Your task to perform on an android device: turn off priority inbox in the gmail app Image 0: 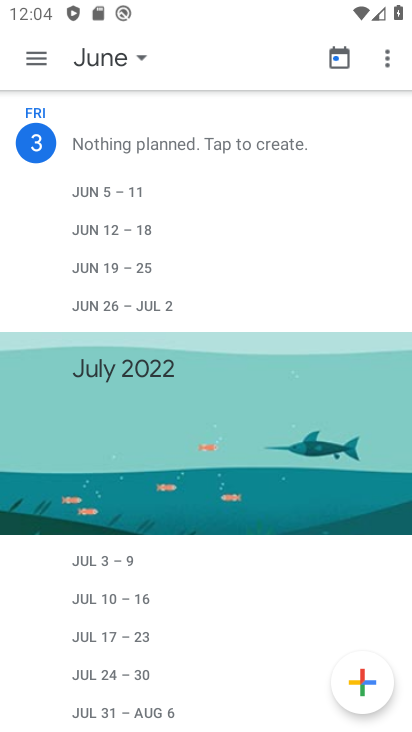
Step 0: press home button
Your task to perform on an android device: turn off priority inbox in the gmail app Image 1: 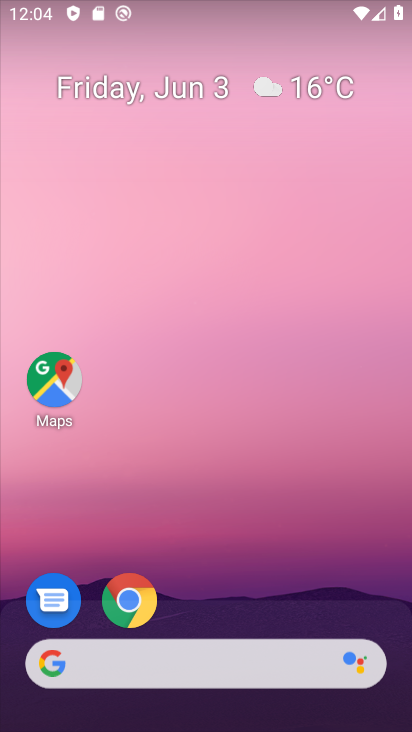
Step 1: drag from (312, 597) to (293, 178)
Your task to perform on an android device: turn off priority inbox in the gmail app Image 2: 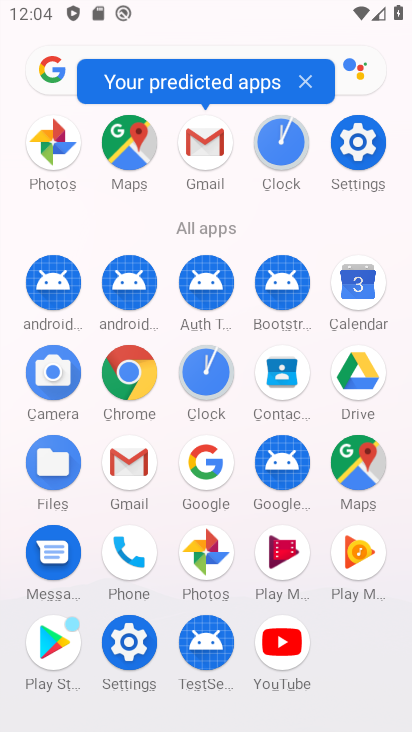
Step 2: click (206, 161)
Your task to perform on an android device: turn off priority inbox in the gmail app Image 3: 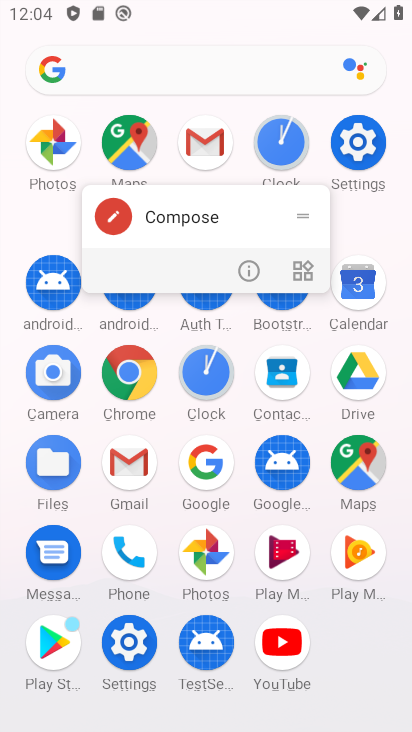
Step 3: click (193, 162)
Your task to perform on an android device: turn off priority inbox in the gmail app Image 4: 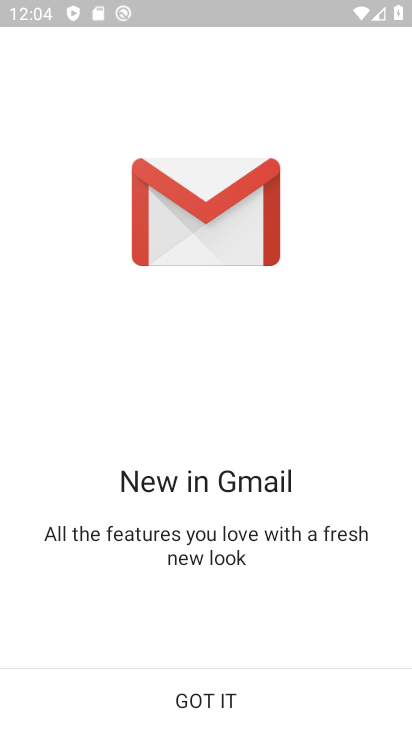
Step 4: click (242, 690)
Your task to perform on an android device: turn off priority inbox in the gmail app Image 5: 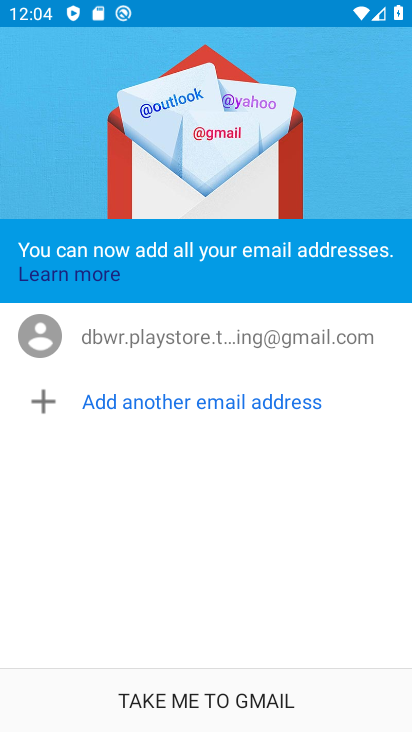
Step 5: click (268, 709)
Your task to perform on an android device: turn off priority inbox in the gmail app Image 6: 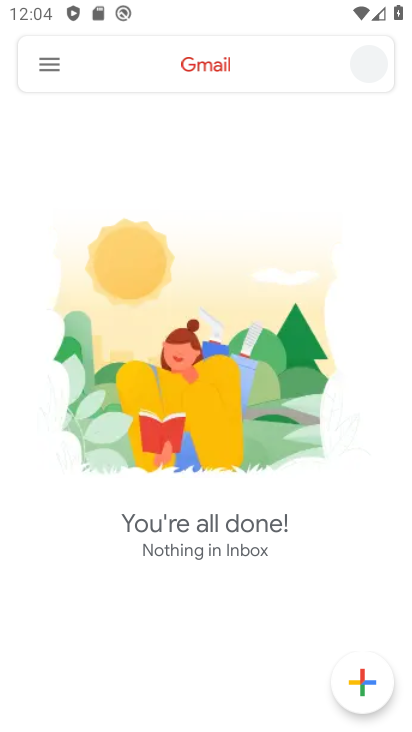
Step 6: click (53, 60)
Your task to perform on an android device: turn off priority inbox in the gmail app Image 7: 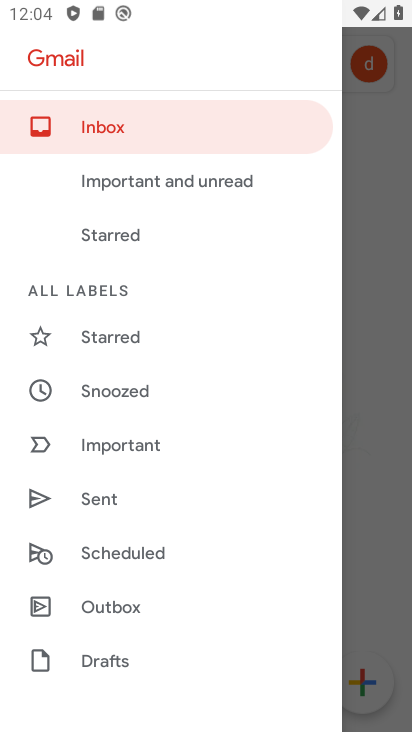
Step 7: drag from (122, 667) to (165, 354)
Your task to perform on an android device: turn off priority inbox in the gmail app Image 8: 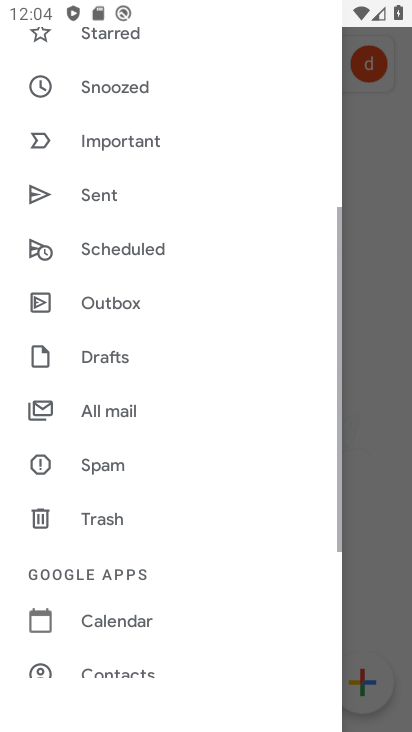
Step 8: click (165, 354)
Your task to perform on an android device: turn off priority inbox in the gmail app Image 9: 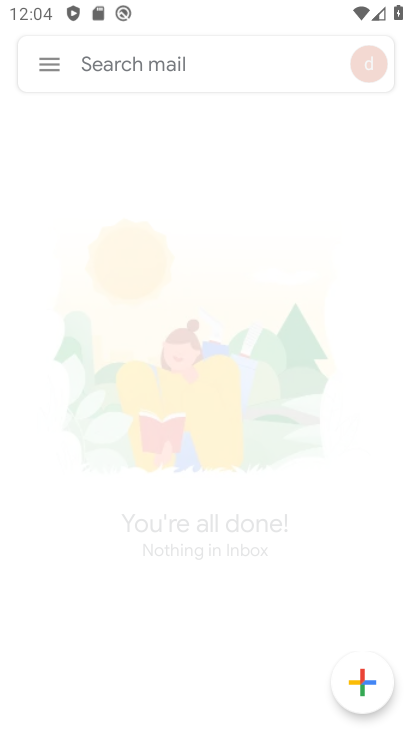
Step 9: drag from (154, 652) to (208, 404)
Your task to perform on an android device: turn off priority inbox in the gmail app Image 10: 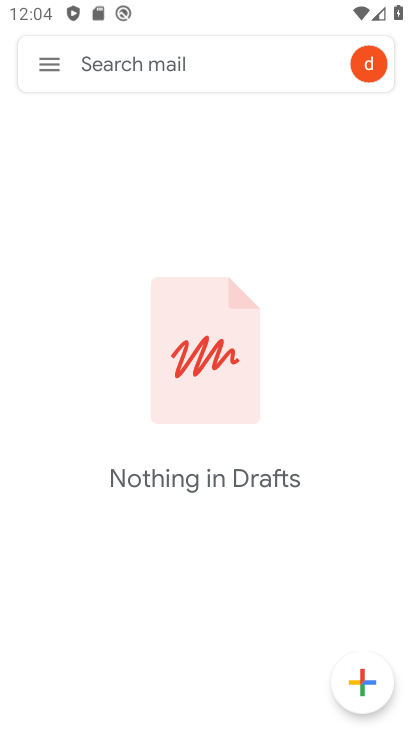
Step 10: click (59, 76)
Your task to perform on an android device: turn off priority inbox in the gmail app Image 11: 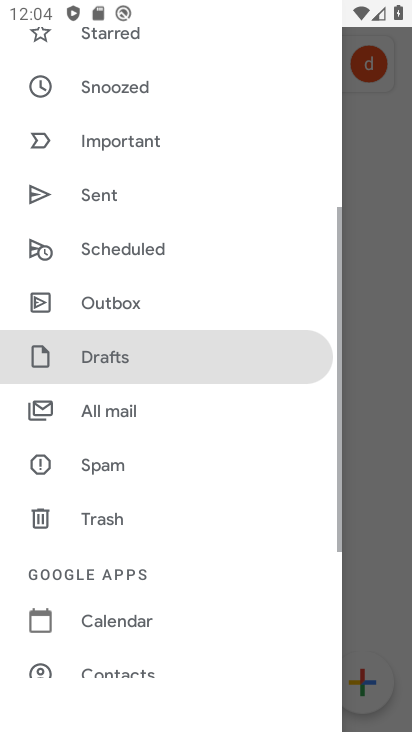
Step 11: drag from (203, 626) to (235, 187)
Your task to perform on an android device: turn off priority inbox in the gmail app Image 12: 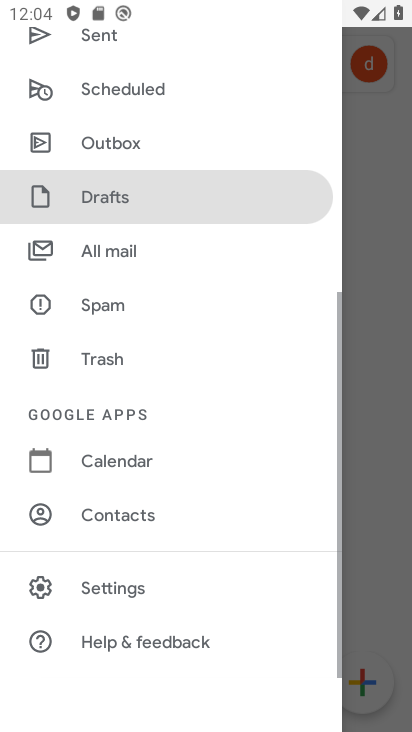
Step 12: click (133, 591)
Your task to perform on an android device: turn off priority inbox in the gmail app Image 13: 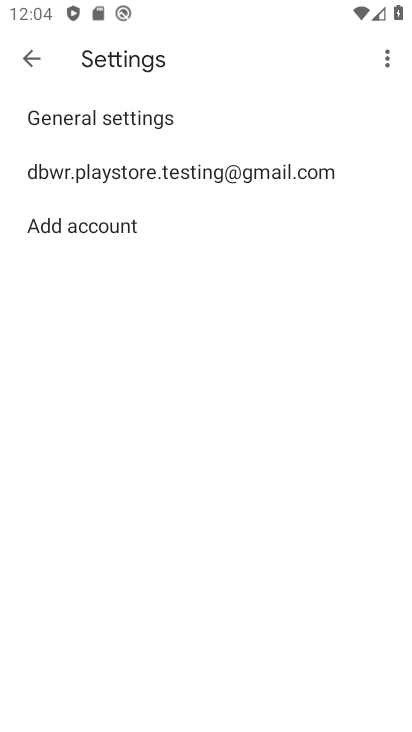
Step 13: click (253, 175)
Your task to perform on an android device: turn off priority inbox in the gmail app Image 14: 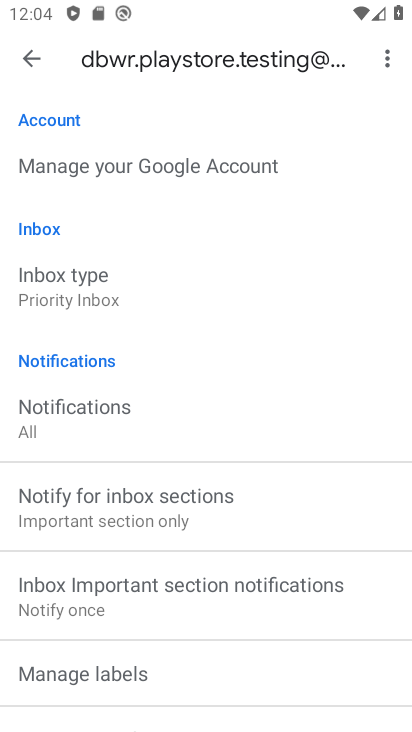
Step 14: click (107, 291)
Your task to perform on an android device: turn off priority inbox in the gmail app Image 15: 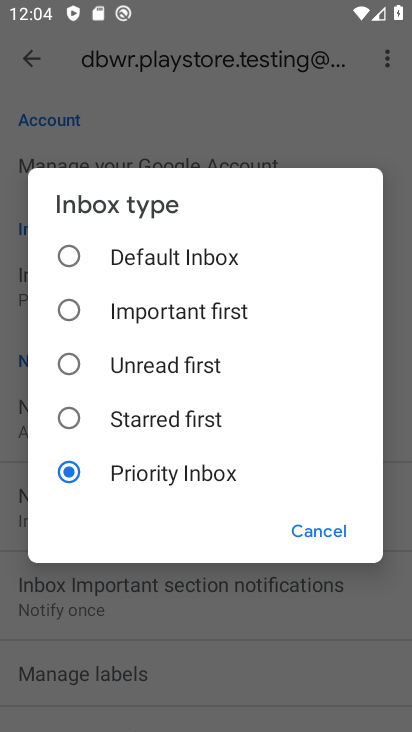
Step 15: task complete